Your task to perform on an android device: toggle pop-ups in chrome Image 0: 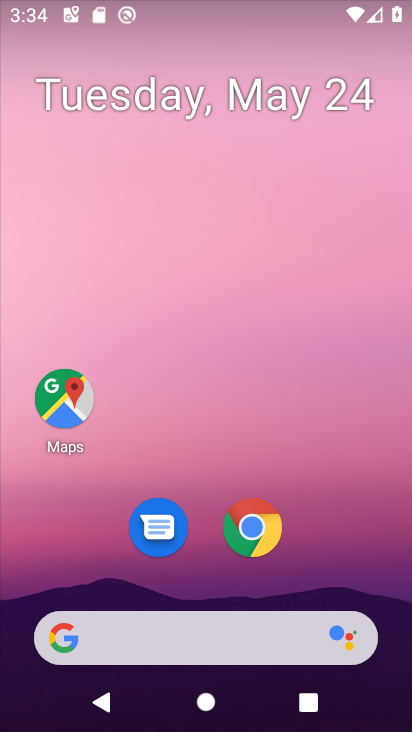
Step 0: click (256, 528)
Your task to perform on an android device: toggle pop-ups in chrome Image 1: 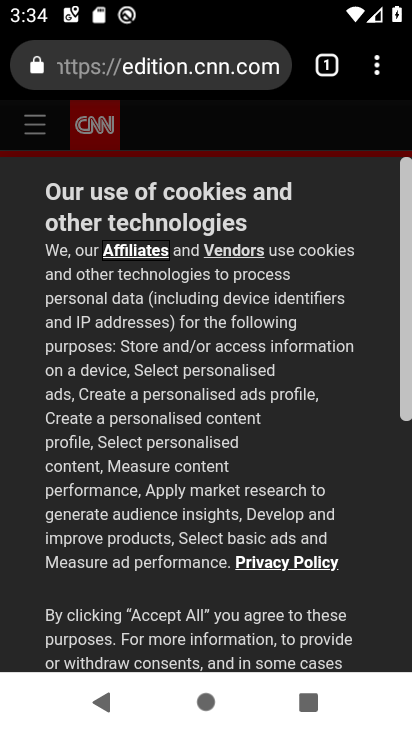
Step 1: click (377, 69)
Your task to perform on an android device: toggle pop-ups in chrome Image 2: 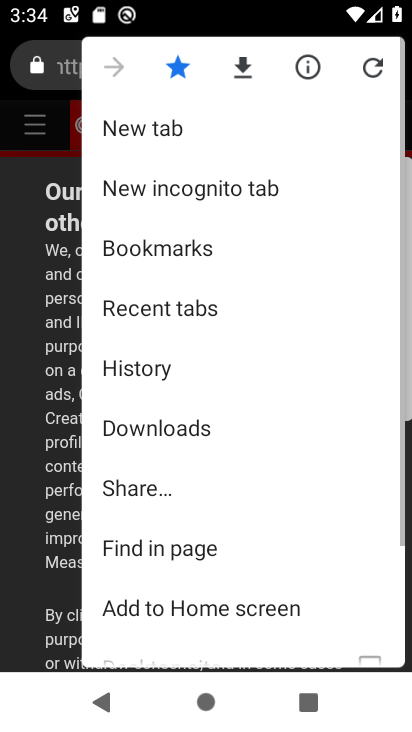
Step 2: drag from (267, 533) to (277, 139)
Your task to perform on an android device: toggle pop-ups in chrome Image 3: 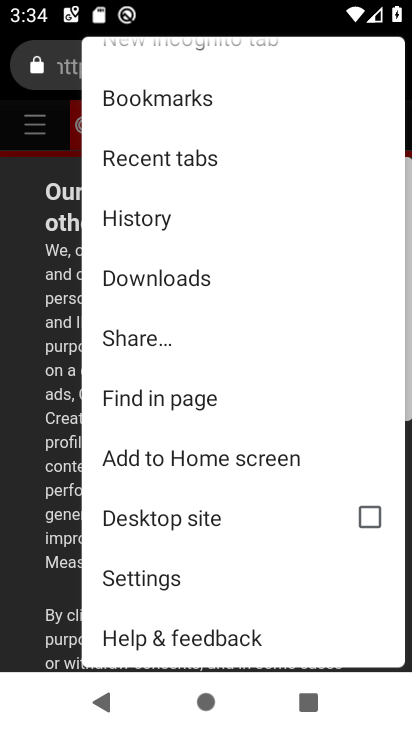
Step 3: click (126, 583)
Your task to perform on an android device: toggle pop-ups in chrome Image 4: 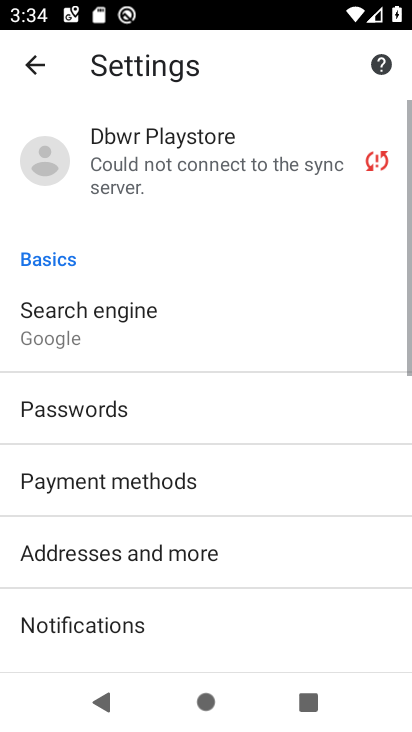
Step 4: drag from (215, 605) to (230, 88)
Your task to perform on an android device: toggle pop-ups in chrome Image 5: 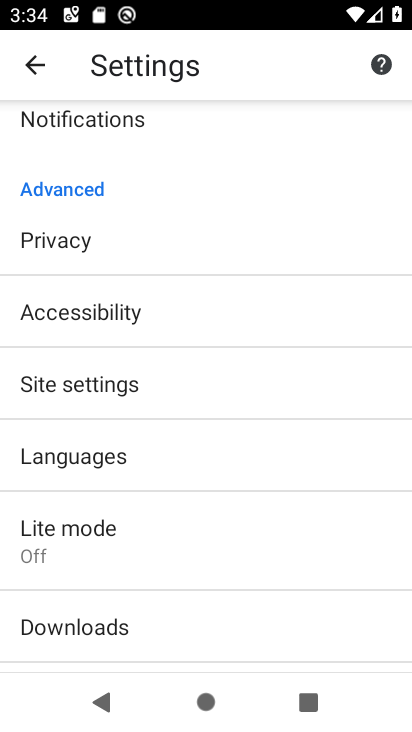
Step 5: click (72, 391)
Your task to perform on an android device: toggle pop-ups in chrome Image 6: 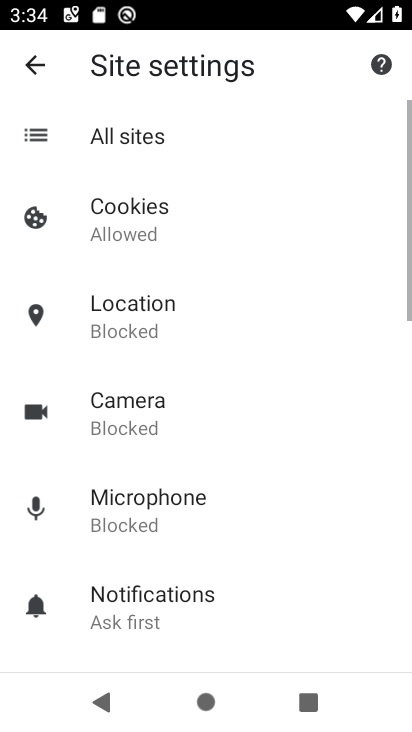
Step 6: drag from (277, 226) to (275, 103)
Your task to perform on an android device: toggle pop-ups in chrome Image 7: 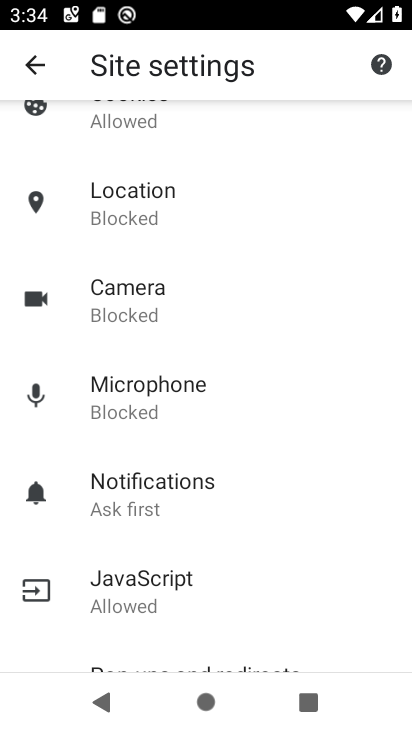
Step 7: drag from (237, 573) to (251, 256)
Your task to perform on an android device: toggle pop-ups in chrome Image 8: 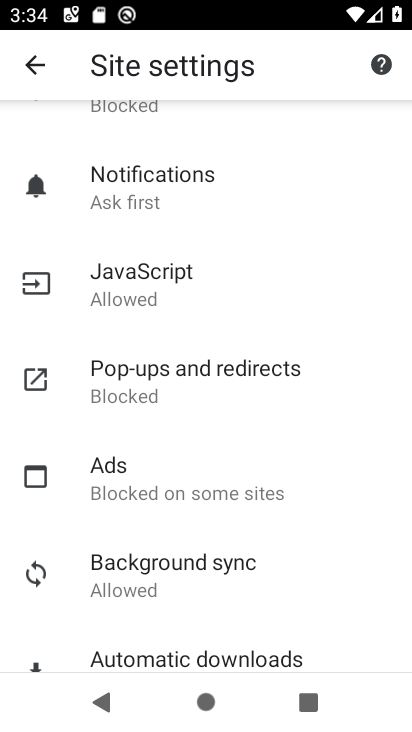
Step 8: click (139, 379)
Your task to perform on an android device: toggle pop-ups in chrome Image 9: 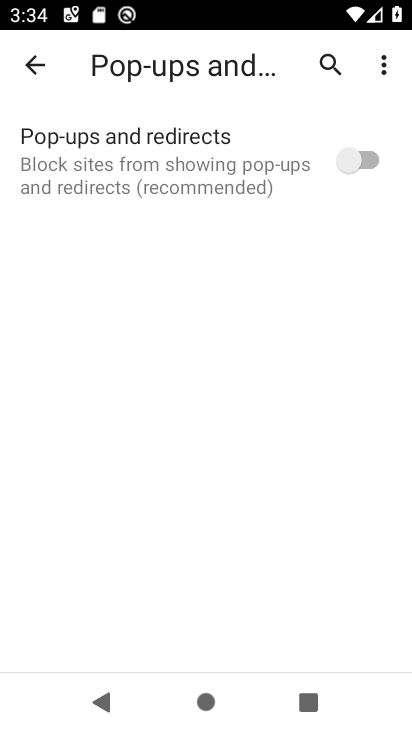
Step 9: click (350, 160)
Your task to perform on an android device: toggle pop-ups in chrome Image 10: 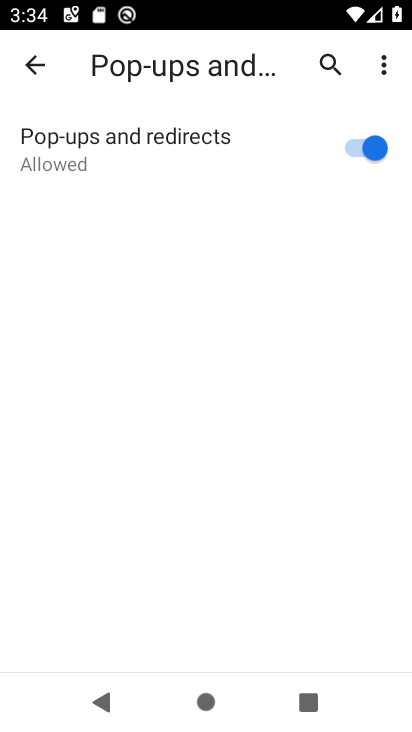
Step 10: task complete